Your task to perform on an android device: Go to Google maps Image 0: 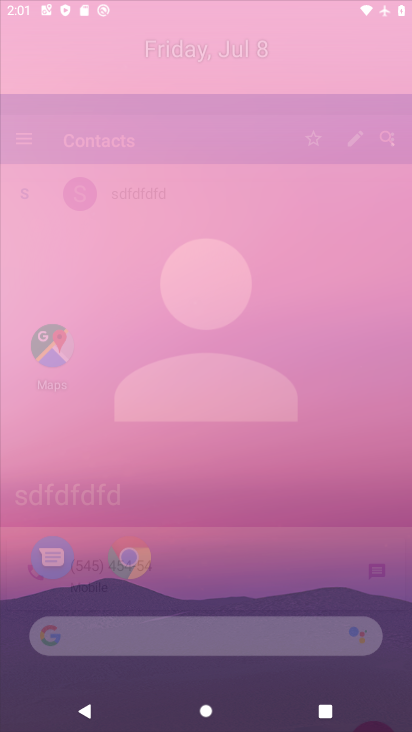
Step 0: press home button
Your task to perform on an android device: Go to Google maps Image 1: 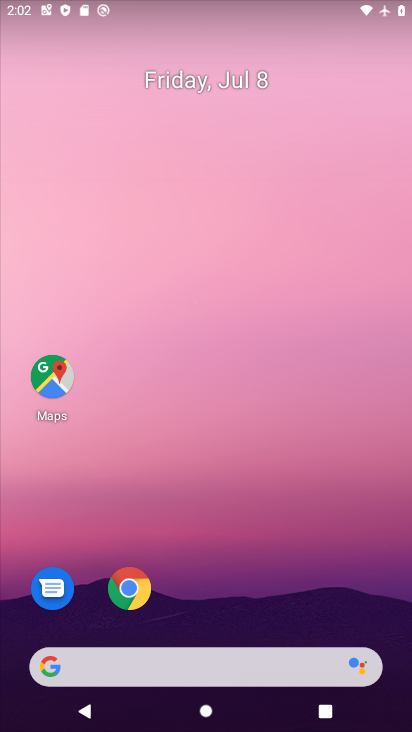
Step 1: drag from (213, 589) to (177, 90)
Your task to perform on an android device: Go to Google maps Image 2: 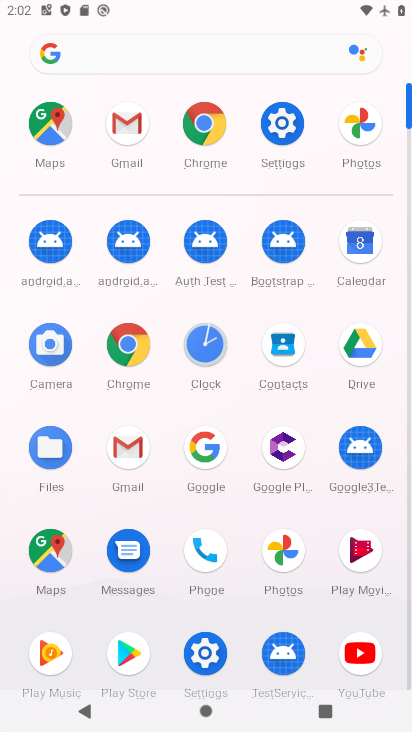
Step 2: click (44, 126)
Your task to perform on an android device: Go to Google maps Image 3: 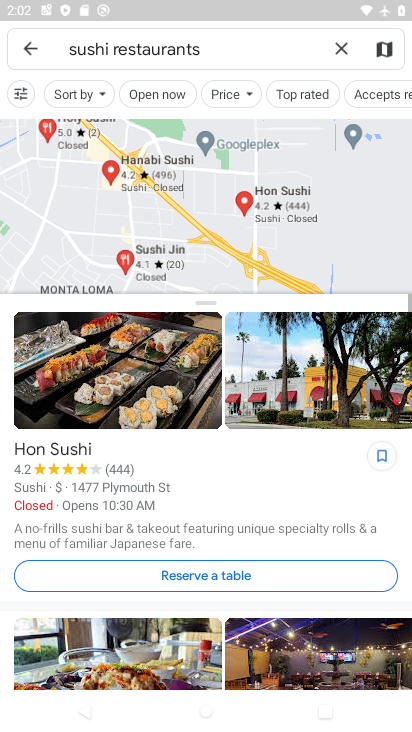
Step 3: task complete